Your task to perform on an android device: What's the weather? Image 0: 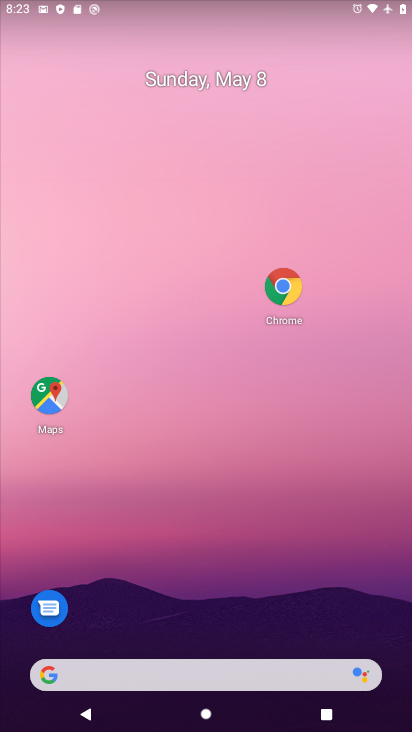
Step 0: click (52, 679)
Your task to perform on an android device: What's the weather? Image 1: 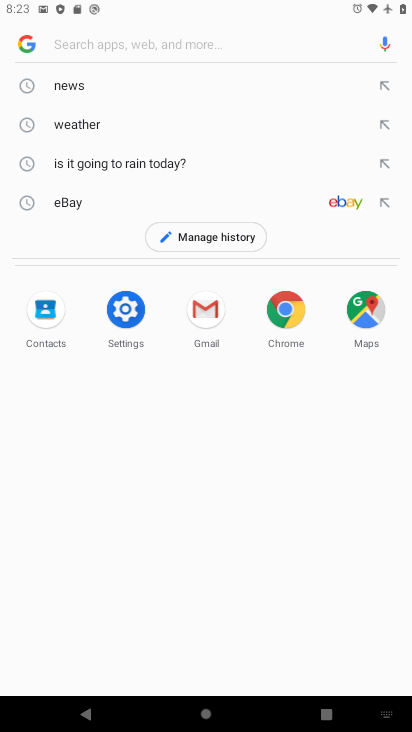
Step 1: click (82, 125)
Your task to perform on an android device: What's the weather? Image 2: 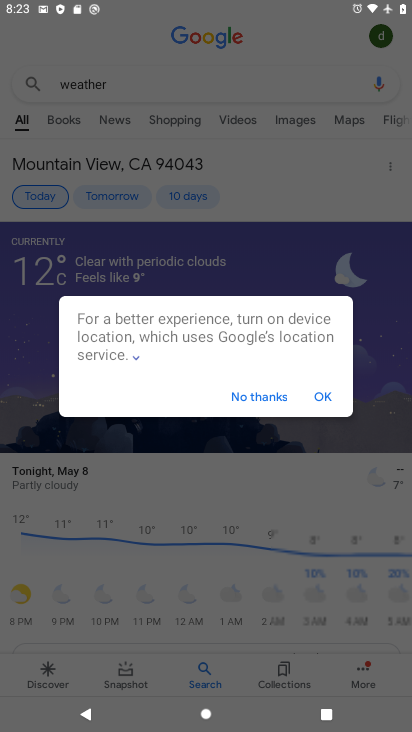
Step 2: click (329, 394)
Your task to perform on an android device: What's the weather? Image 3: 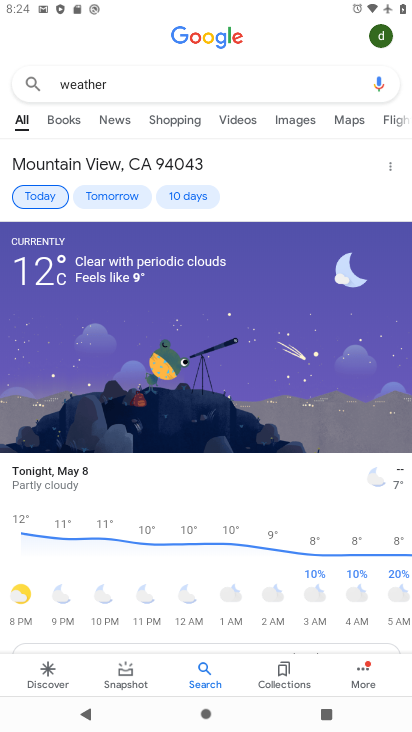
Step 3: task complete